Your task to perform on an android device: find which apps use the phone's location Image 0: 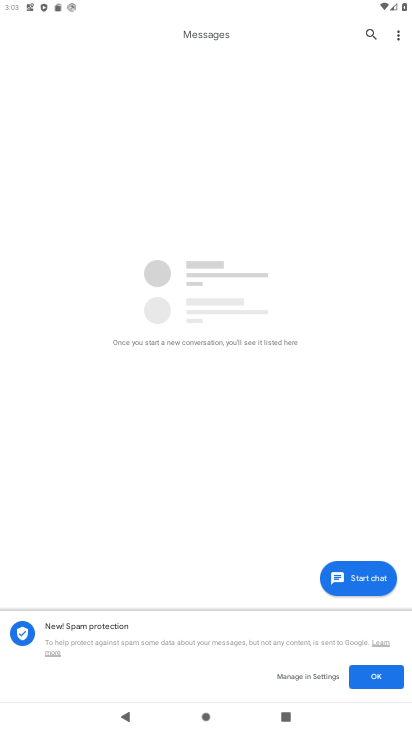
Step 0: press home button
Your task to perform on an android device: find which apps use the phone's location Image 1: 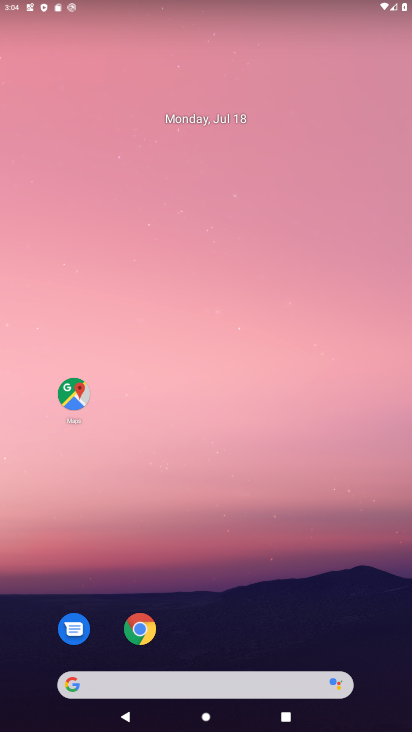
Step 1: drag from (192, 639) to (205, 233)
Your task to perform on an android device: find which apps use the phone's location Image 2: 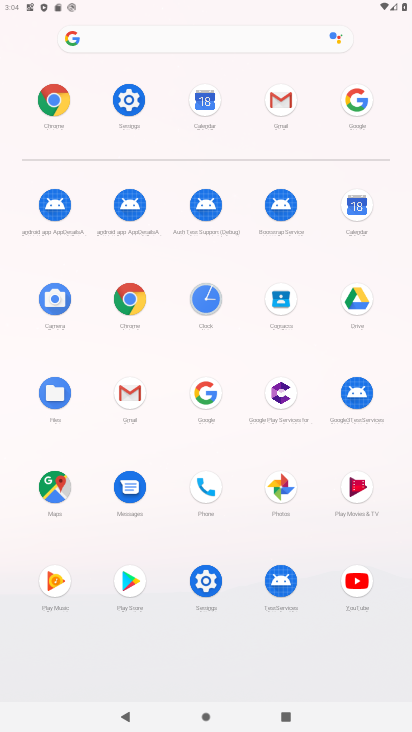
Step 2: click (134, 108)
Your task to perform on an android device: find which apps use the phone's location Image 3: 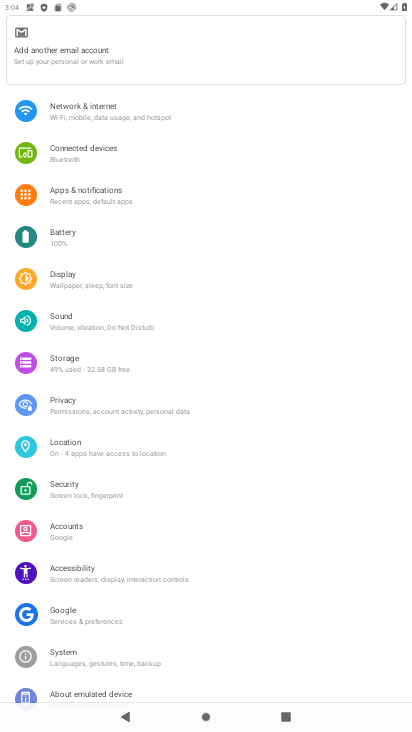
Step 3: click (108, 442)
Your task to perform on an android device: find which apps use the phone's location Image 4: 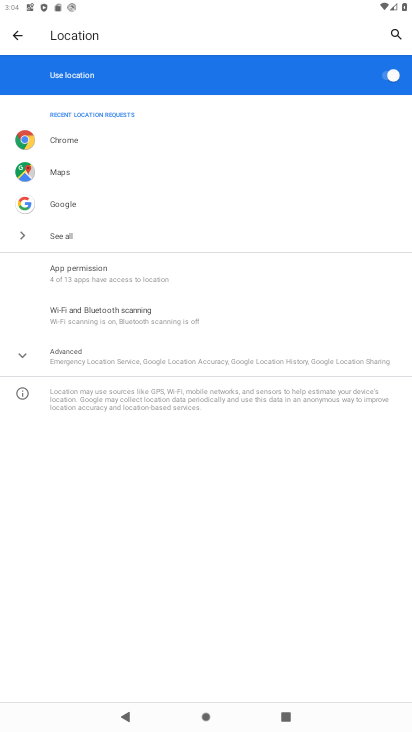
Step 4: click (119, 272)
Your task to perform on an android device: find which apps use the phone's location Image 5: 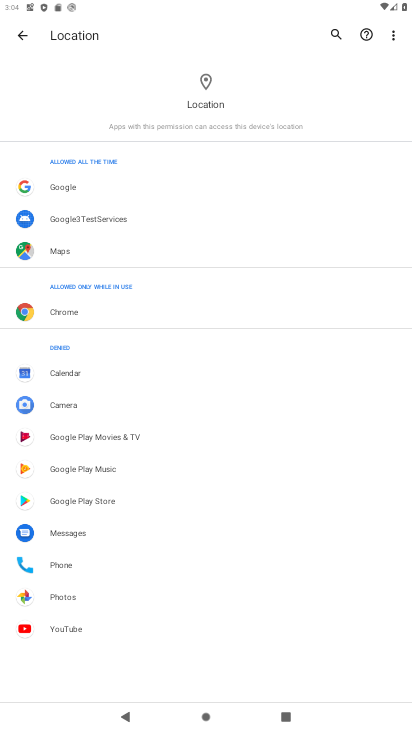
Step 5: task complete